Your task to perform on an android device: find photos in the google photos app Image 0: 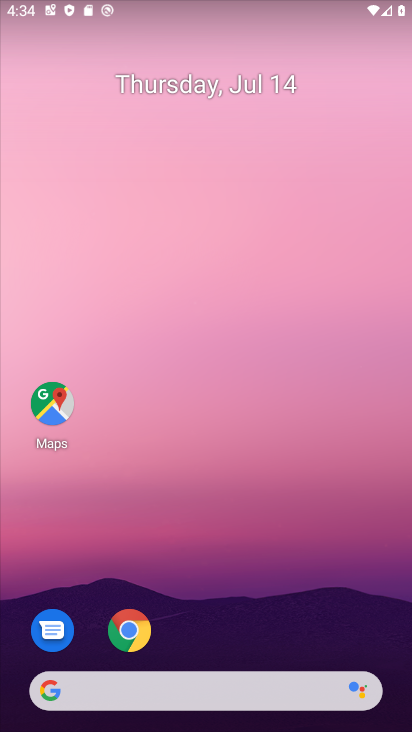
Step 0: click (230, 250)
Your task to perform on an android device: find photos in the google photos app Image 1: 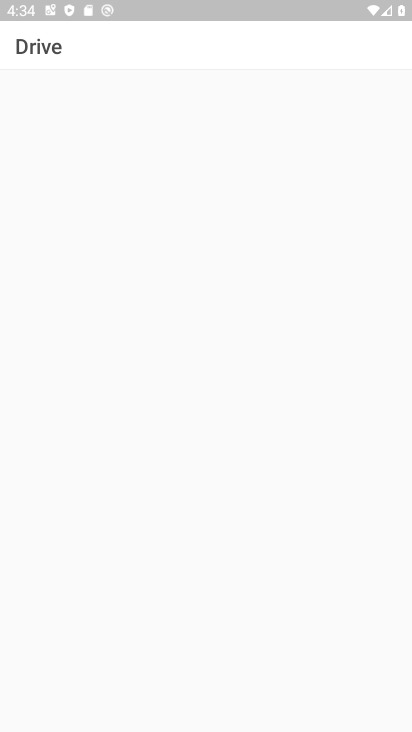
Step 1: press home button
Your task to perform on an android device: find photos in the google photos app Image 2: 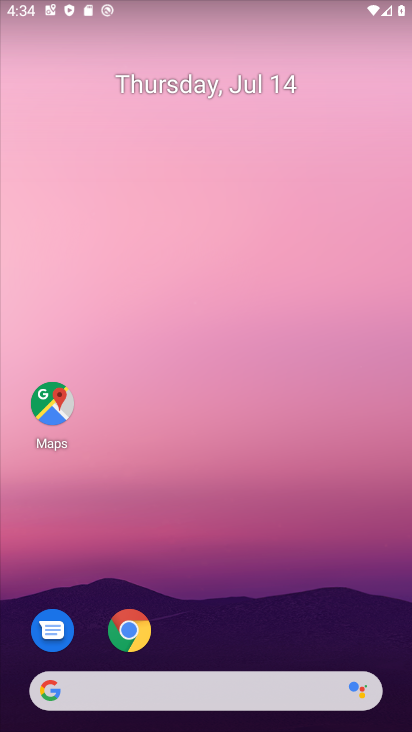
Step 2: drag from (180, 632) to (179, 40)
Your task to perform on an android device: find photos in the google photos app Image 3: 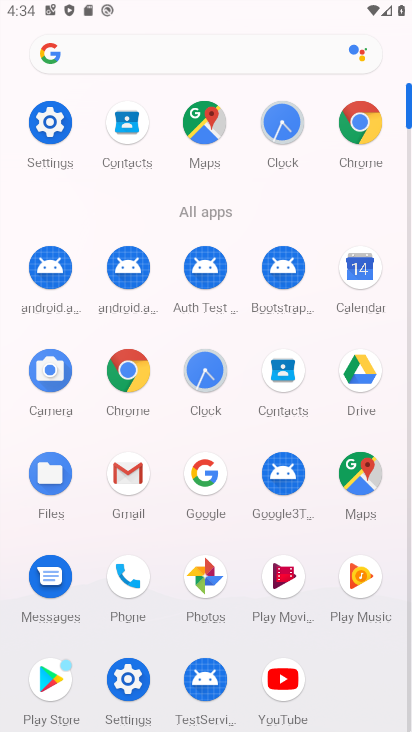
Step 3: click (206, 587)
Your task to perform on an android device: find photos in the google photos app Image 4: 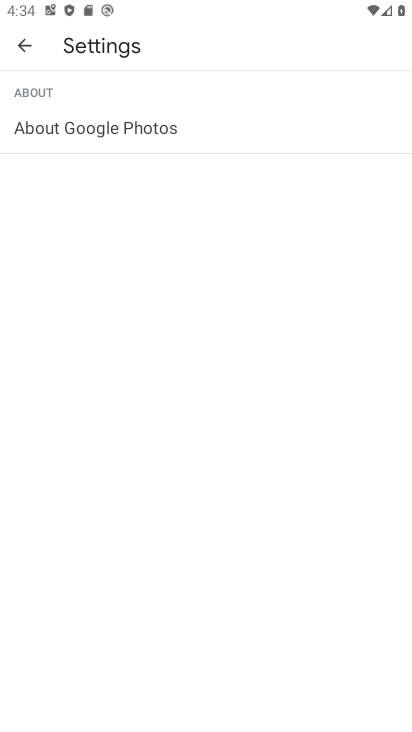
Step 4: click (30, 36)
Your task to perform on an android device: find photos in the google photos app Image 5: 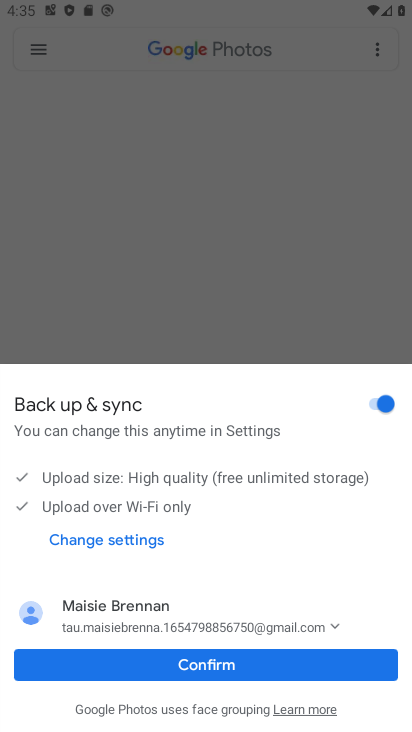
Step 5: task complete